Your task to perform on an android device: Open Chrome and go to the settings page Image 0: 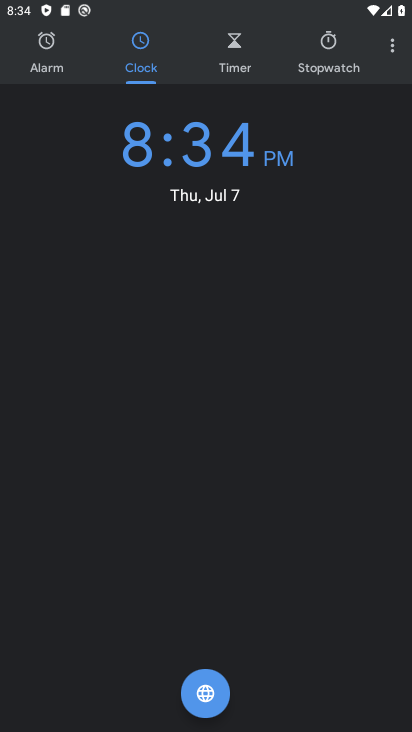
Step 0: press home button
Your task to perform on an android device: Open Chrome and go to the settings page Image 1: 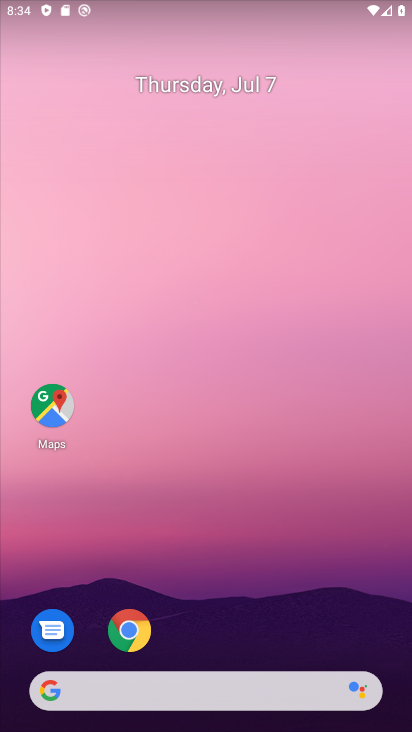
Step 1: click (143, 623)
Your task to perform on an android device: Open Chrome and go to the settings page Image 2: 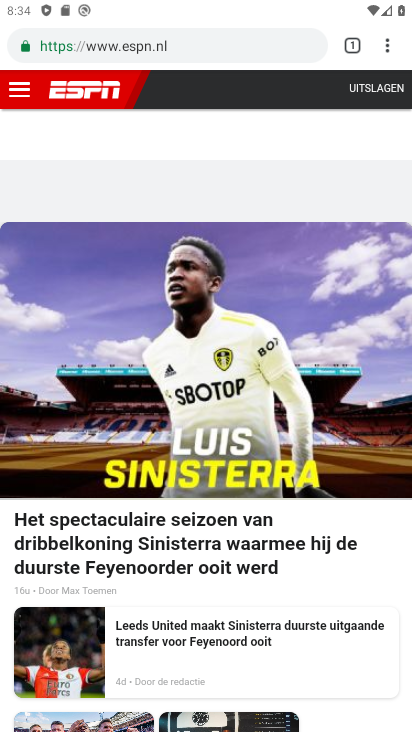
Step 2: click (390, 47)
Your task to perform on an android device: Open Chrome and go to the settings page Image 3: 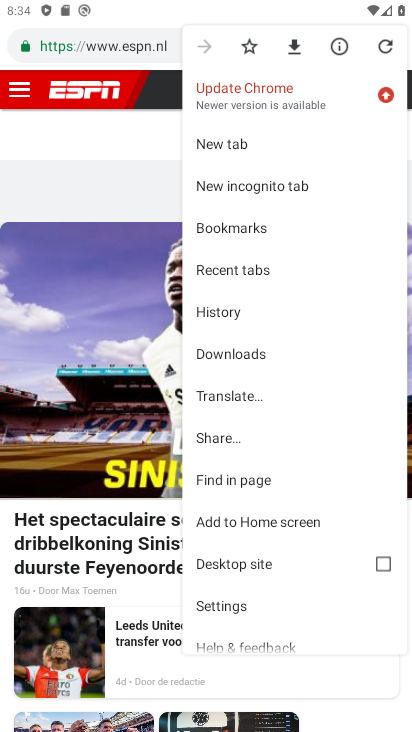
Step 3: click (228, 609)
Your task to perform on an android device: Open Chrome and go to the settings page Image 4: 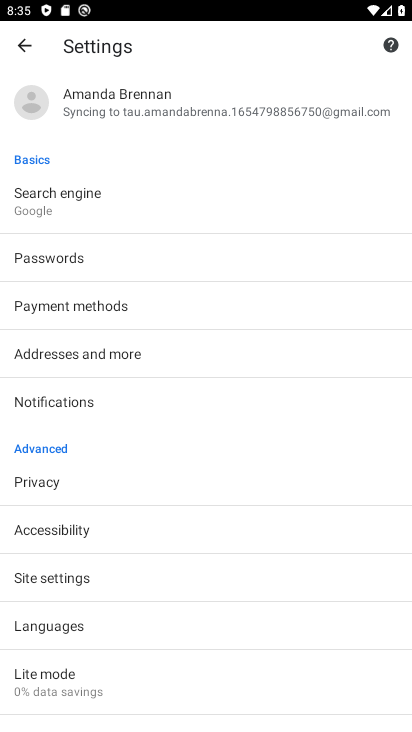
Step 4: task complete